Your task to perform on an android device: Go to settings Image 0: 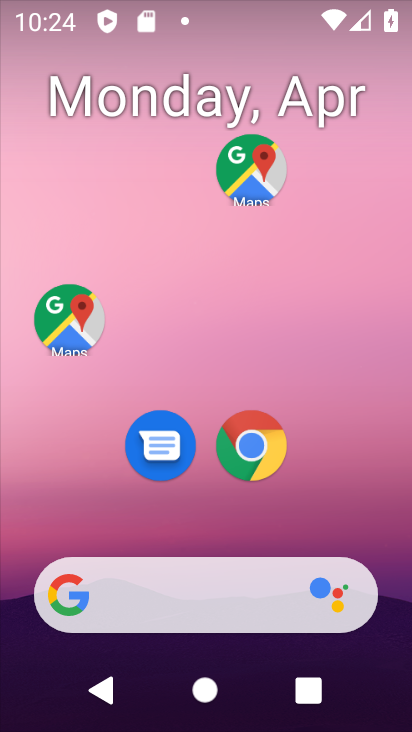
Step 0: drag from (257, 536) to (307, 70)
Your task to perform on an android device: Go to settings Image 1: 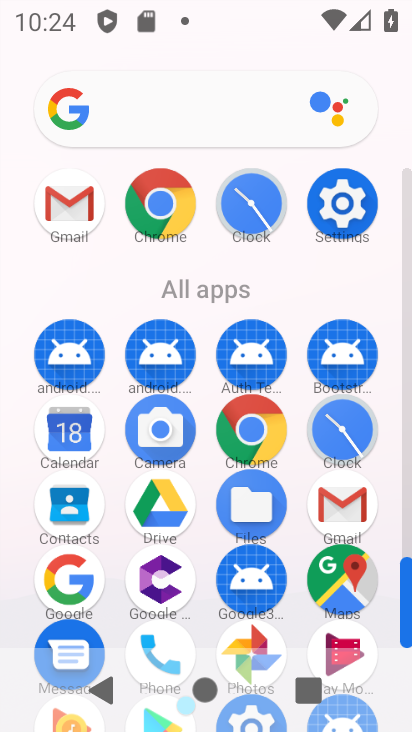
Step 1: click (344, 217)
Your task to perform on an android device: Go to settings Image 2: 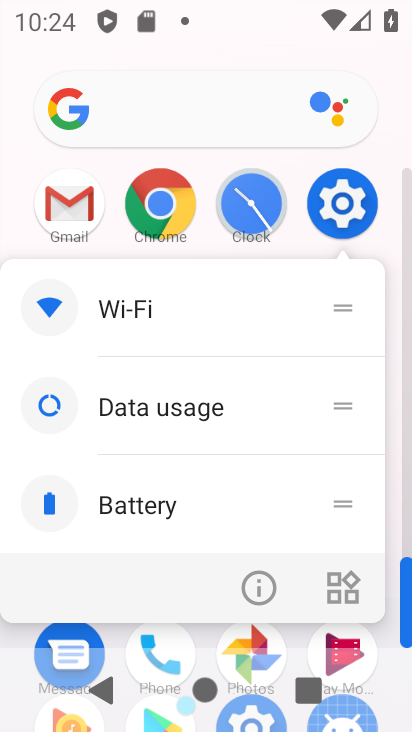
Step 2: click (343, 215)
Your task to perform on an android device: Go to settings Image 3: 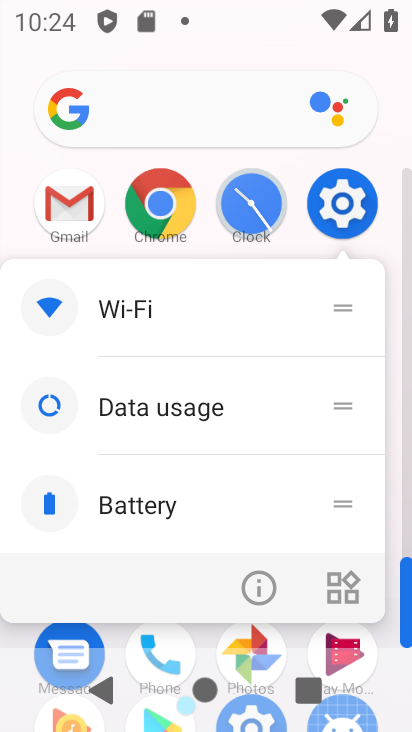
Step 3: click (340, 213)
Your task to perform on an android device: Go to settings Image 4: 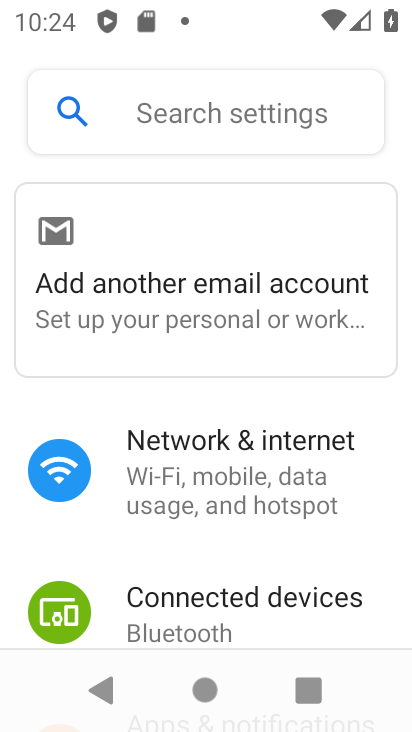
Step 4: task complete